Your task to perform on an android device: Show me productivity apps on the Play Store Image 0: 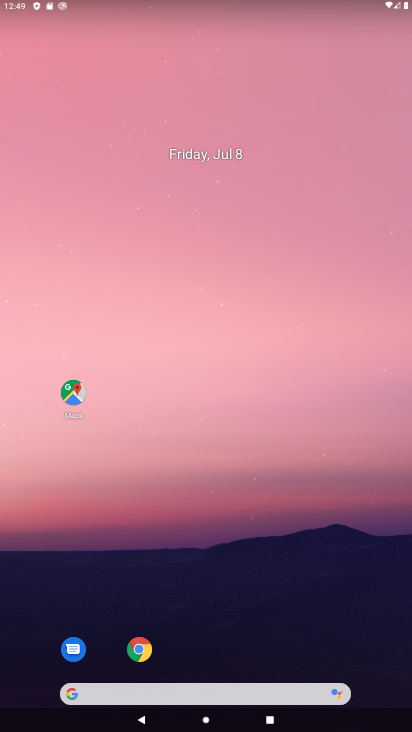
Step 0: drag from (44, 695) to (349, 11)
Your task to perform on an android device: Show me productivity apps on the Play Store Image 1: 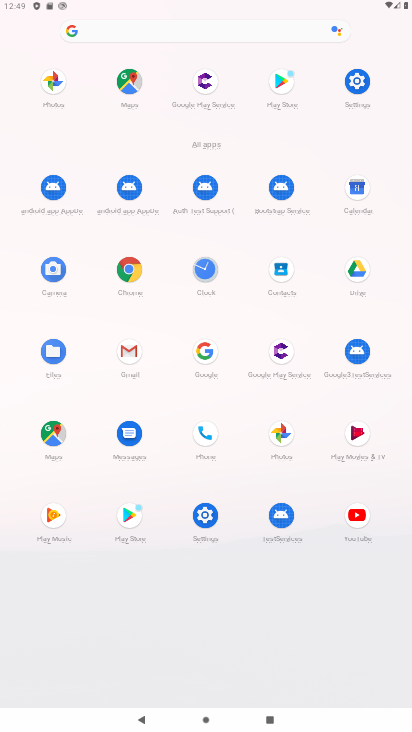
Step 1: click (138, 522)
Your task to perform on an android device: Show me productivity apps on the Play Store Image 2: 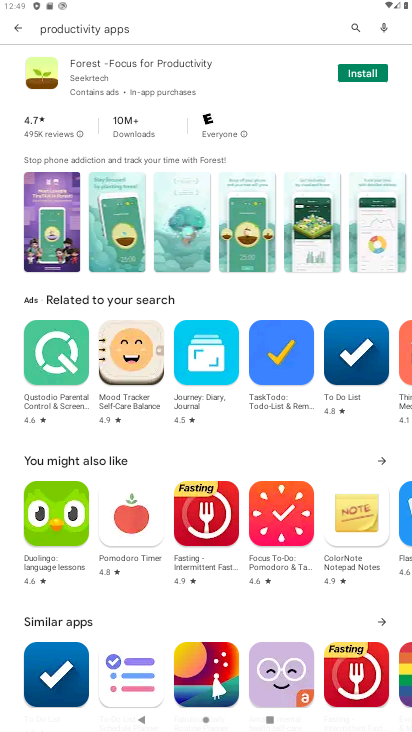
Step 2: task complete